Your task to perform on an android device: Open Google Chrome Image 0: 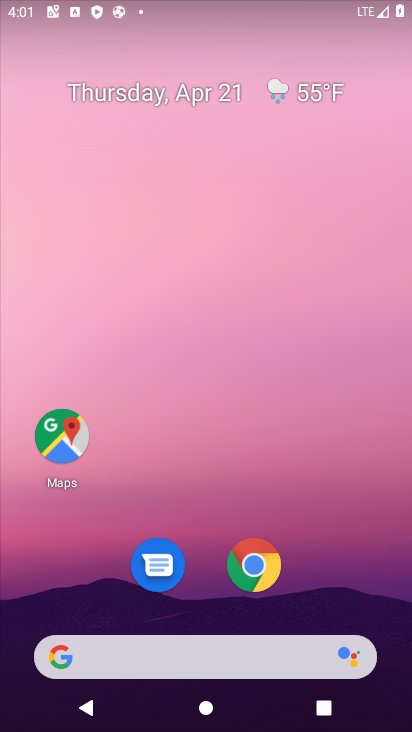
Step 0: click (96, 658)
Your task to perform on an android device: Open Google Chrome Image 1: 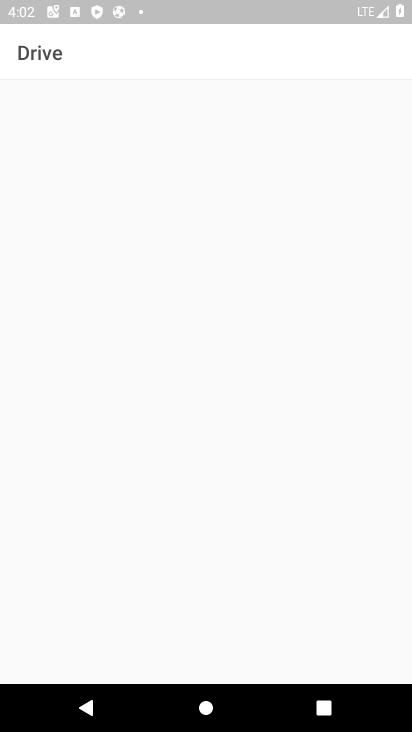
Step 1: press home button
Your task to perform on an android device: Open Google Chrome Image 2: 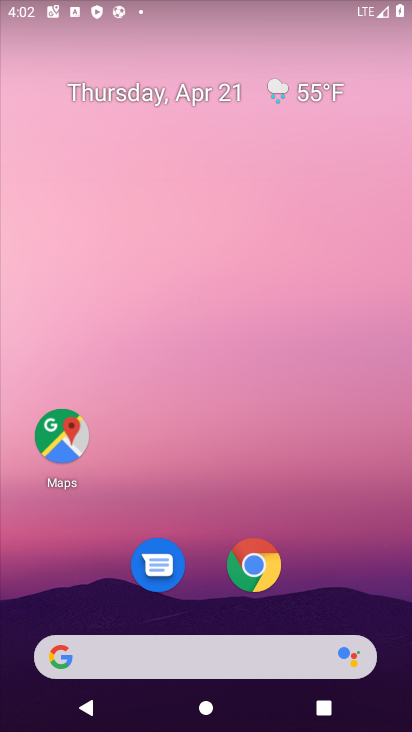
Step 2: click (259, 565)
Your task to perform on an android device: Open Google Chrome Image 3: 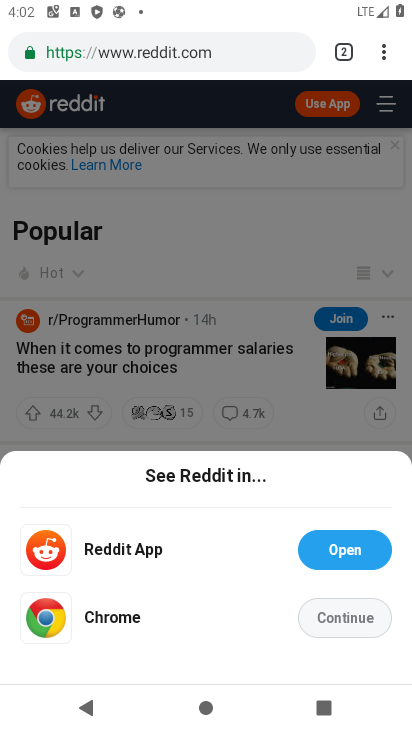
Step 3: click (359, 618)
Your task to perform on an android device: Open Google Chrome Image 4: 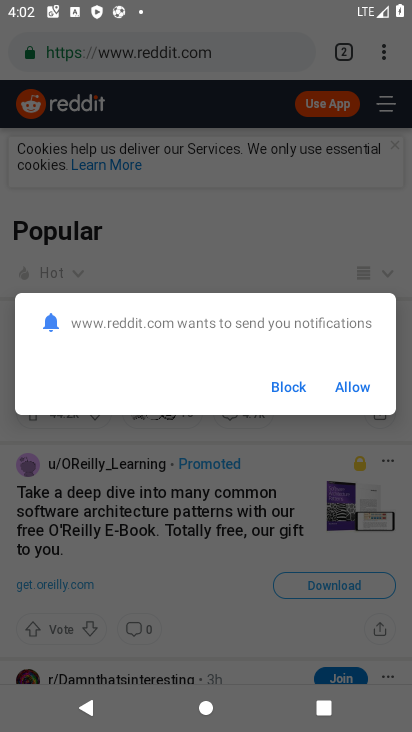
Step 4: click (287, 379)
Your task to perform on an android device: Open Google Chrome Image 5: 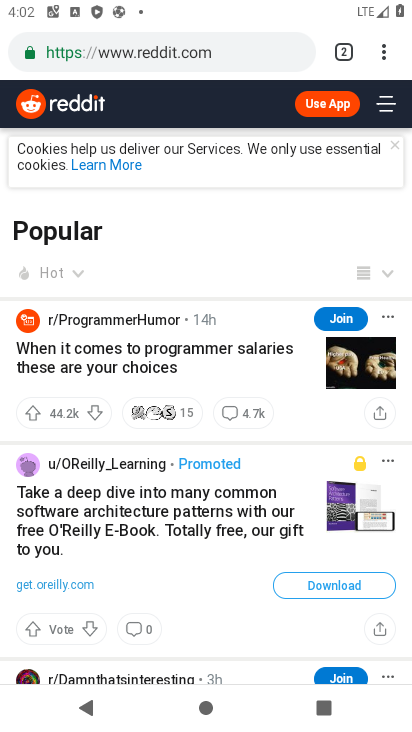
Step 5: task complete